Your task to perform on an android device: Show the shopping cart on amazon. Add dell alienware to the cart on amazon, then select checkout. Image 0: 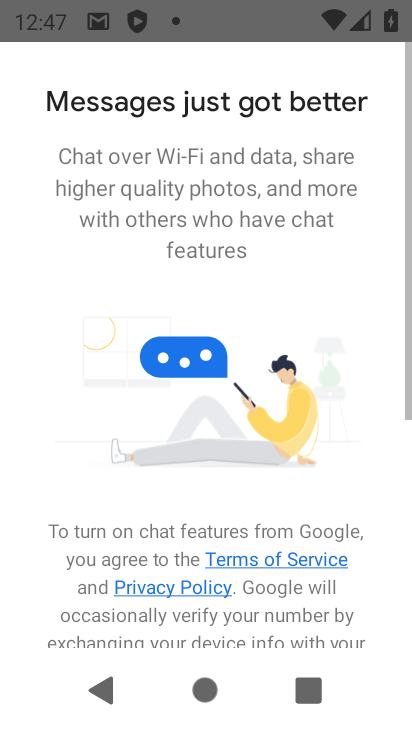
Step 0: press home button
Your task to perform on an android device: Show the shopping cart on amazon. Add dell alienware to the cart on amazon, then select checkout. Image 1: 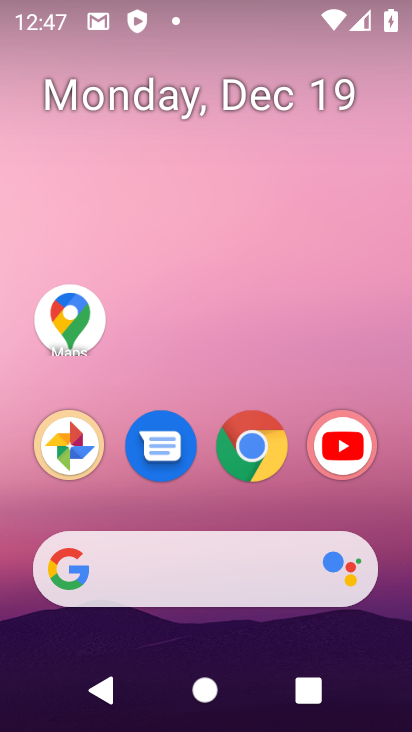
Step 1: click (230, 455)
Your task to perform on an android device: Show the shopping cart on amazon. Add dell alienware to the cart on amazon, then select checkout. Image 2: 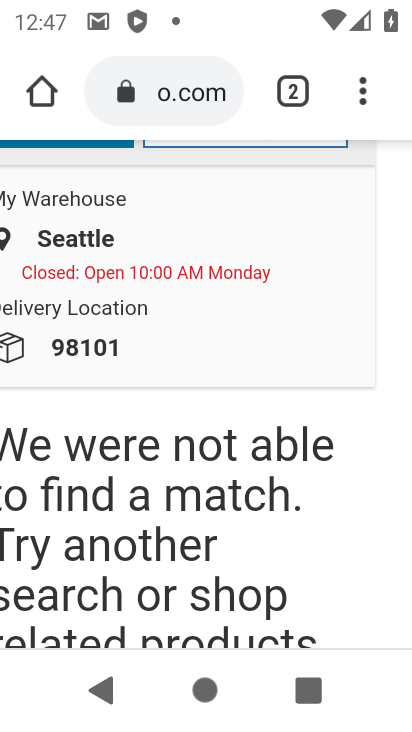
Step 2: drag from (245, 137) to (240, 269)
Your task to perform on an android device: Show the shopping cart on amazon. Add dell alienware to the cart on amazon, then select checkout. Image 3: 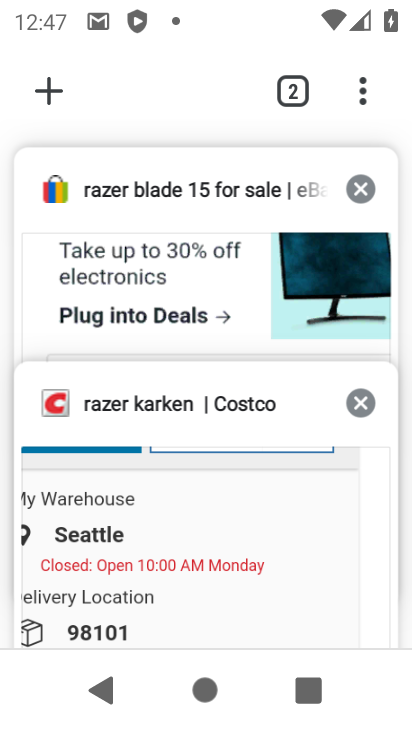
Step 3: click (60, 108)
Your task to perform on an android device: Show the shopping cart on amazon. Add dell alienware to the cart on amazon, then select checkout. Image 4: 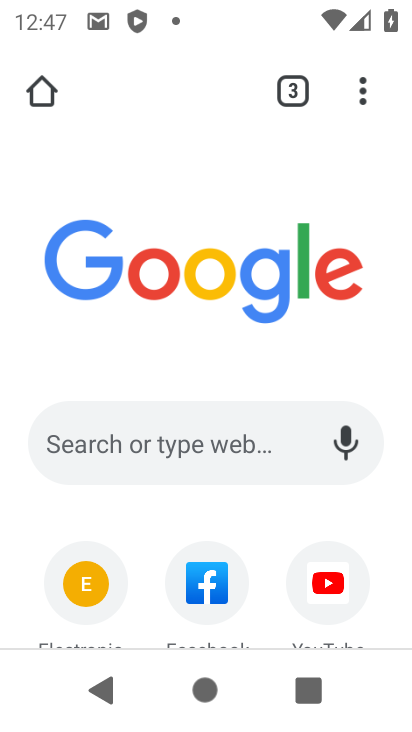
Step 4: click (197, 416)
Your task to perform on an android device: Show the shopping cart on amazon. Add dell alienware to the cart on amazon, then select checkout. Image 5: 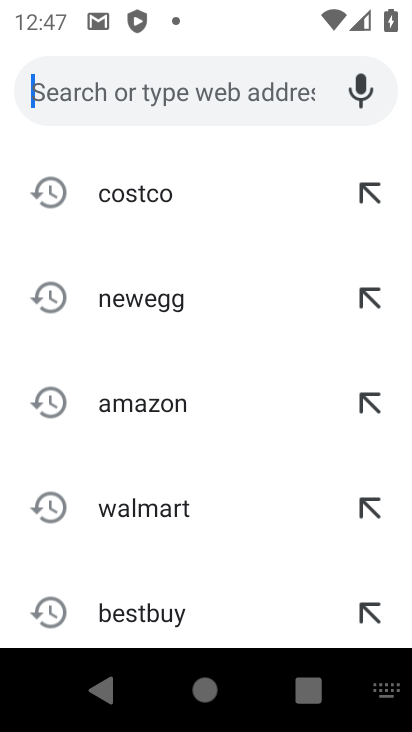
Step 5: click (151, 383)
Your task to perform on an android device: Show the shopping cart on amazon. Add dell alienware to the cart on amazon, then select checkout. Image 6: 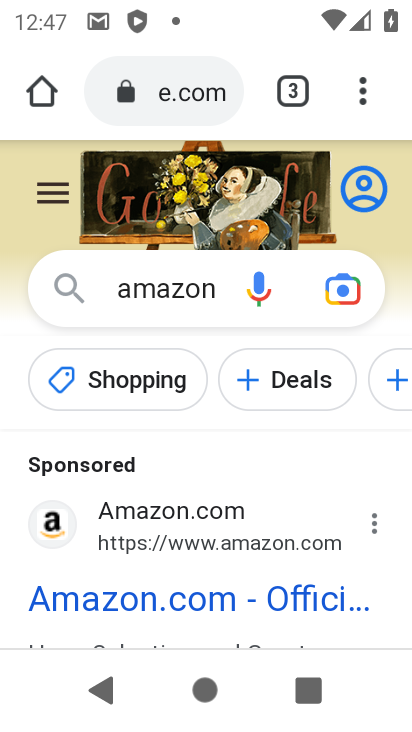
Step 6: click (186, 593)
Your task to perform on an android device: Show the shopping cart on amazon. Add dell alienware to the cart on amazon, then select checkout. Image 7: 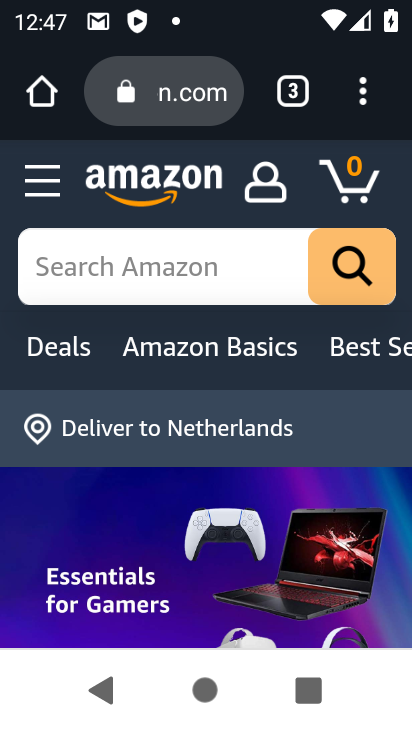
Step 7: click (134, 269)
Your task to perform on an android device: Show the shopping cart on amazon. Add dell alienware to the cart on amazon, then select checkout. Image 8: 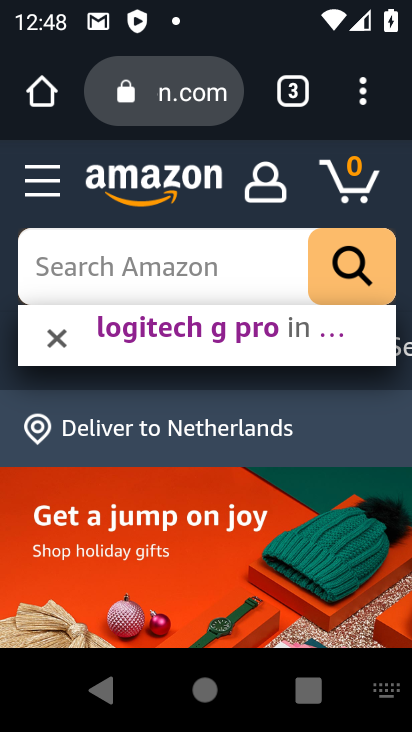
Step 8: type "dell alienware"
Your task to perform on an android device: Show the shopping cart on amazon. Add dell alienware to the cart on amazon, then select checkout. Image 9: 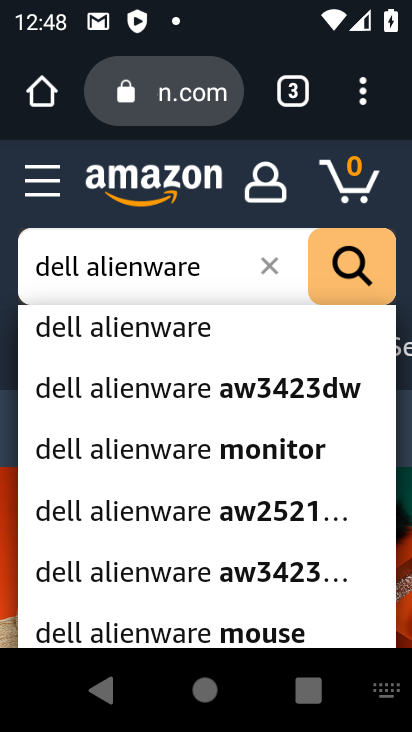
Step 9: click (211, 336)
Your task to perform on an android device: Show the shopping cart on amazon. Add dell alienware to the cart on amazon, then select checkout. Image 10: 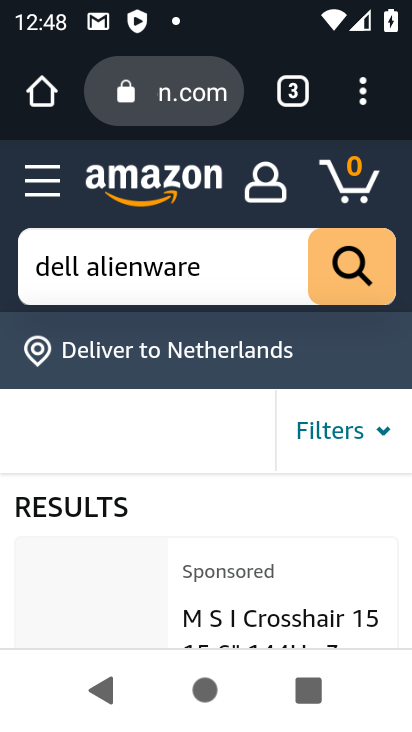
Step 10: drag from (279, 592) to (260, 268)
Your task to perform on an android device: Show the shopping cart on amazon. Add dell alienware to the cart on amazon, then select checkout. Image 11: 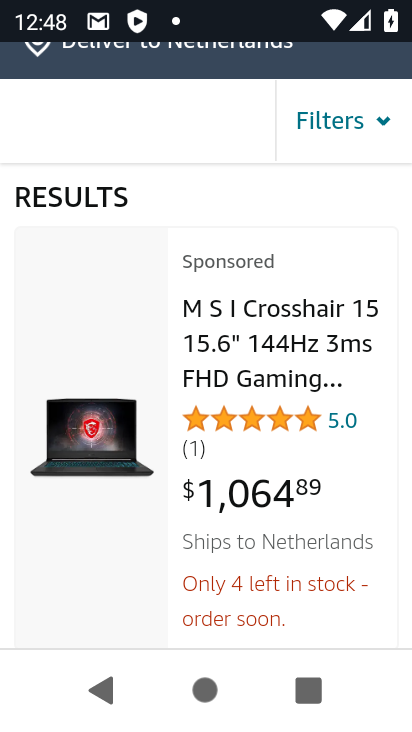
Step 11: drag from (304, 553) to (254, 133)
Your task to perform on an android device: Show the shopping cart on amazon. Add dell alienware to the cart on amazon, then select checkout. Image 12: 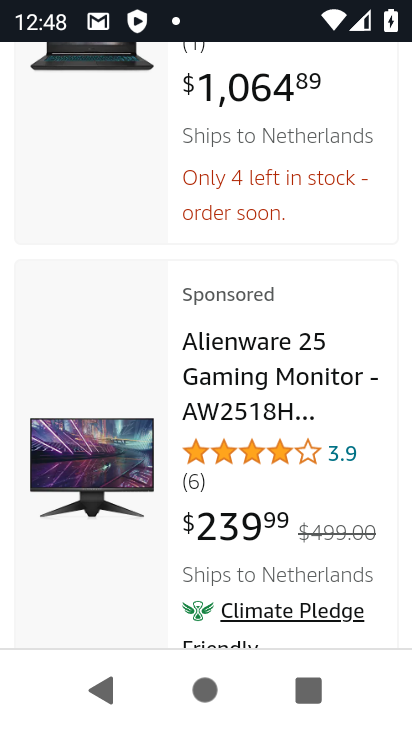
Step 12: click (234, 99)
Your task to perform on an android device: Show the shopping cart on amazon. Add dell alienware to the cart on amazon, then select checkout. Image 13: 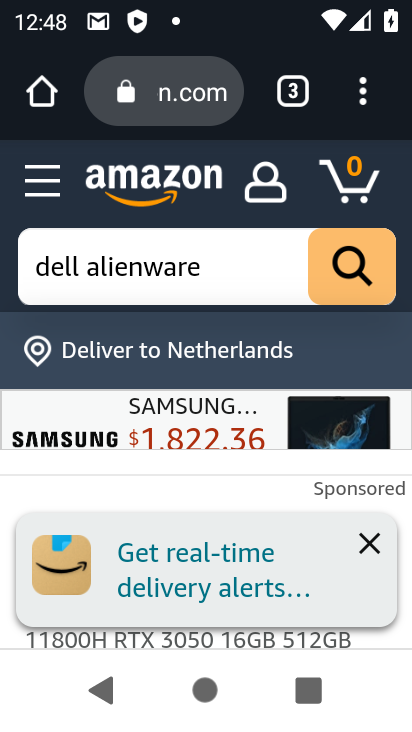
Step 13: click (370, 538)
Your task to perform on an android device: Show the shopping cart on amazon. Add dell alienware to the cart on amazon, then select checkout. Image 14: 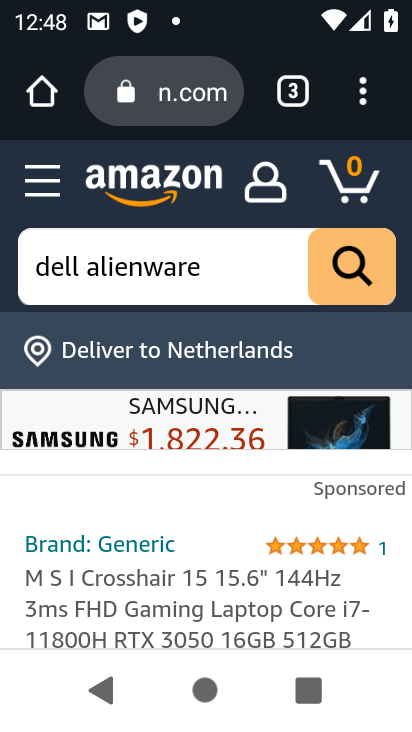
Step 14: drag from (378, 600) to (322, 202)
Your task to perform on an android device: Show the shopping cart on amazon. Add dell alienware to the cart on amazon, then select checkout. Image 15: 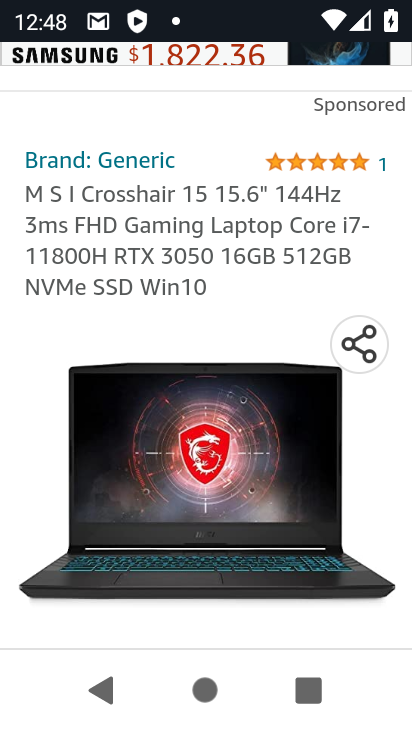
Step 15: drag from (283, 474) to (287, 59)
Your task to perform on an android device: Show the shopping cart on amazon. Add dell alienware to the cart on amazon, then select checkout. Image 16: 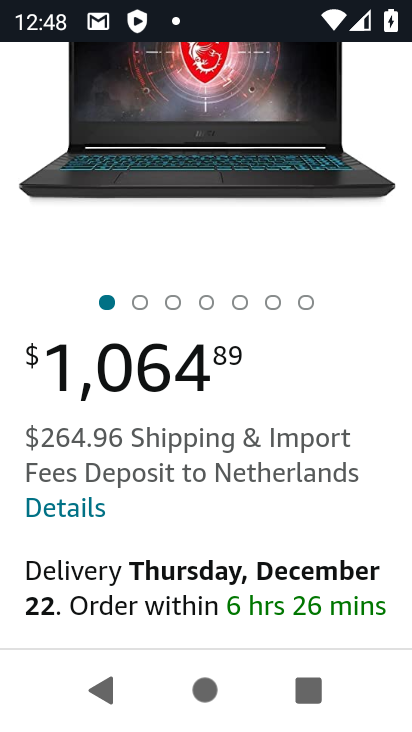
Step 16: drag from (348, 584) to (304, 106)
Your task to perform on an android device: Show the shopping cart on amazon. Add dell alienware to the cart on amazon, then select checkout. Image 17: 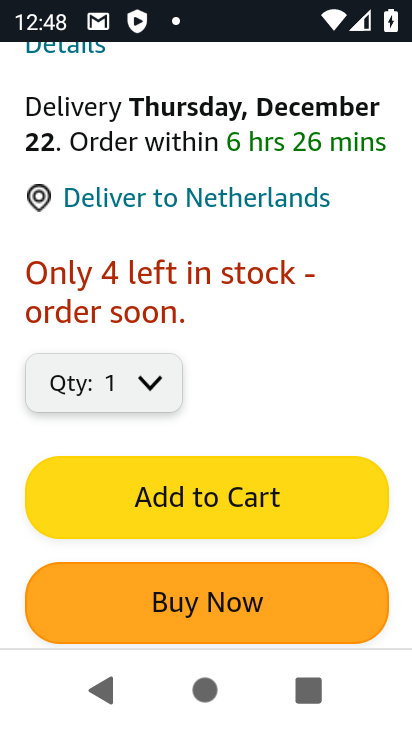
Step 17: click (297, 475)
Your task to perform on an android device: Show the shopping cart on amazon. Add dell alienware to the cart on amazon, then select checkout. Image 18: 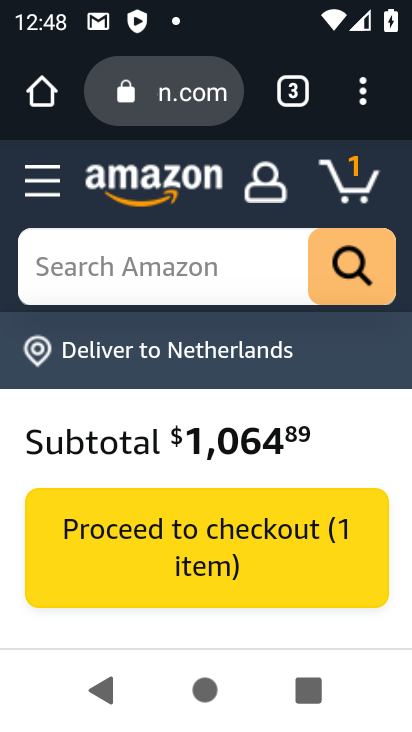
Step 18: task complete